Your task to perform on an android device: What is the recent news? Image 0: 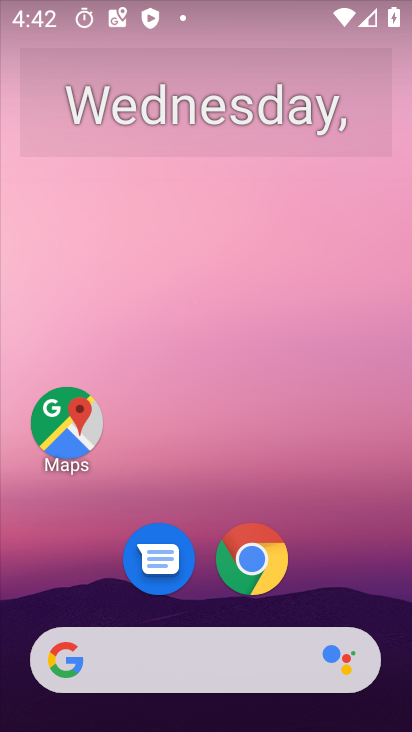
Step 0: drag from (344, 530) to (247, 69)
Your task to perform on an android device: What is the recent news? Image 1: 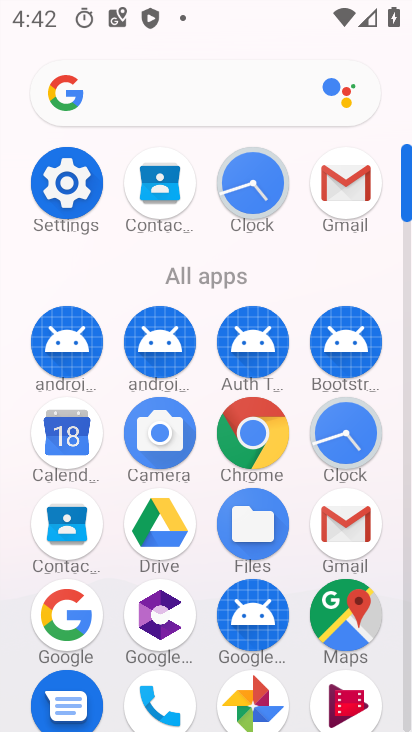
Step 1: click (67, 607)
Your task to perform on an android device: What is the recent news? Image 2: 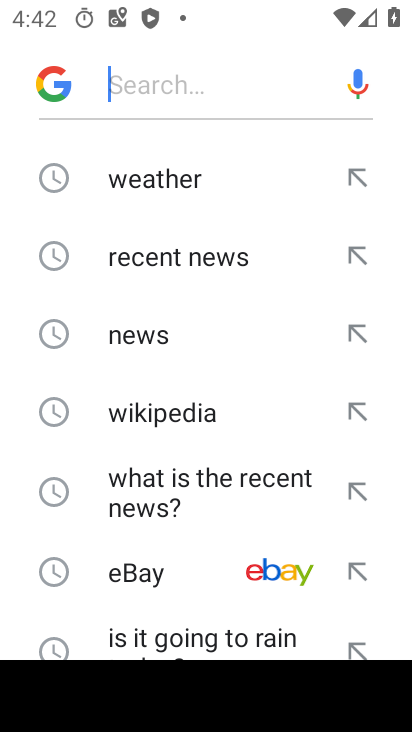
Step 2: click (175, 257)
Your task to perform on an android device: What is the recent news? Image 3: 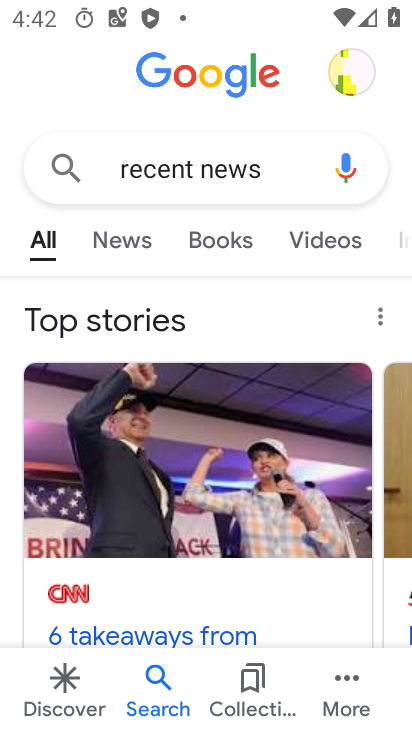
Step 3: task complete